Your task to perform on an android device: toggle javascript in the chrome app Image 0: 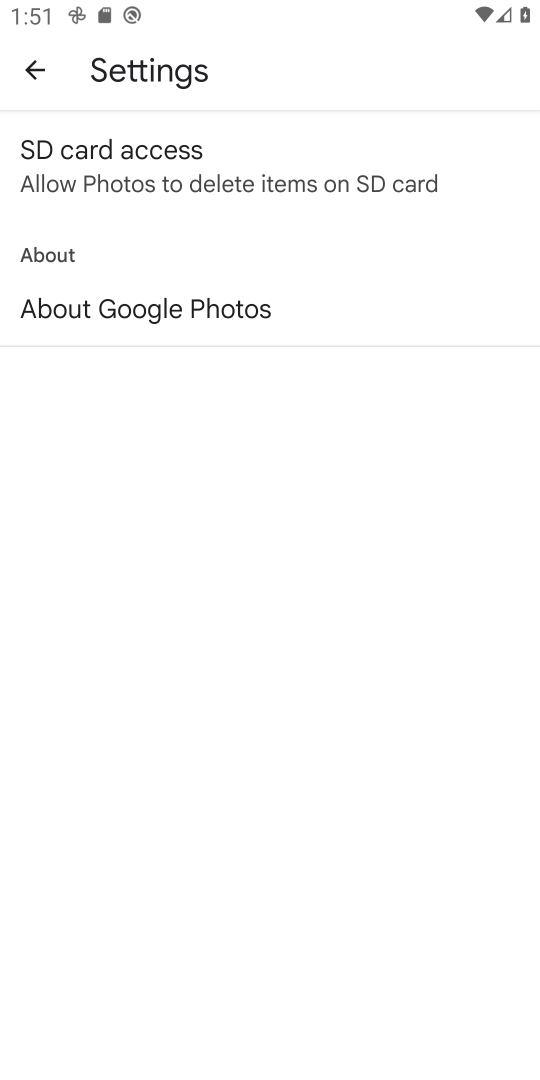
Step 0: press home button
Your task to perform on an android device: toggle javascript in the chrome app Image 1: 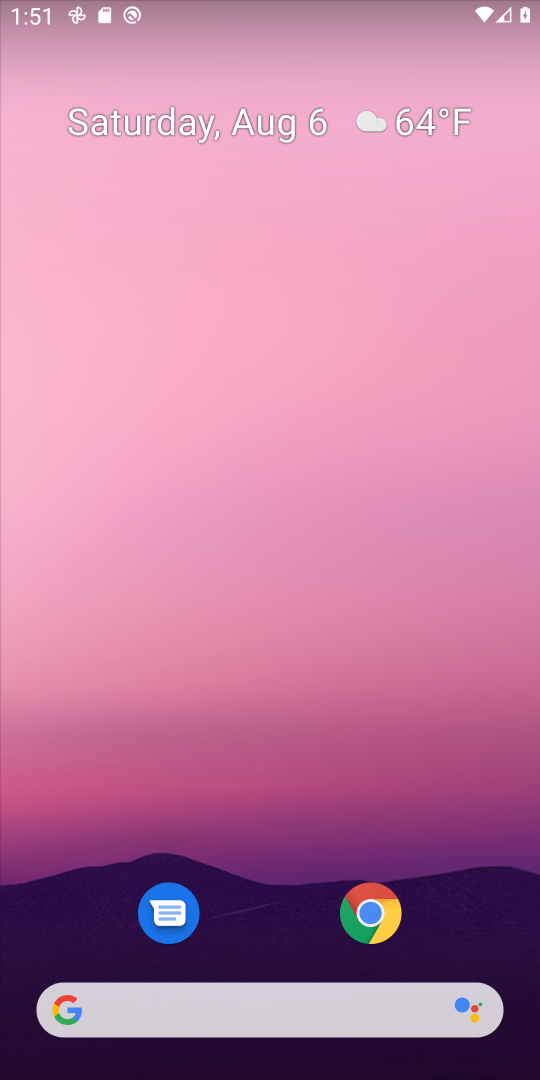
Step 1: drag from (467, 927) to (465, 420)
Your task to perform on an android device: toggle javascript in the chrome app Image 2: 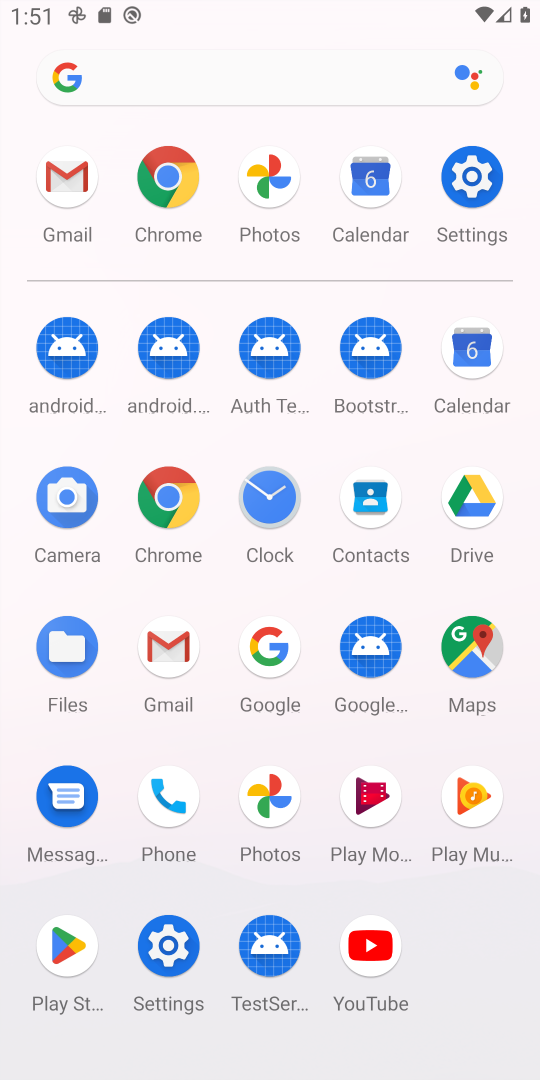
Step 2: click (156, 489)
Your task to perform on an android device: toggle javascript in the chrome app Image 3: 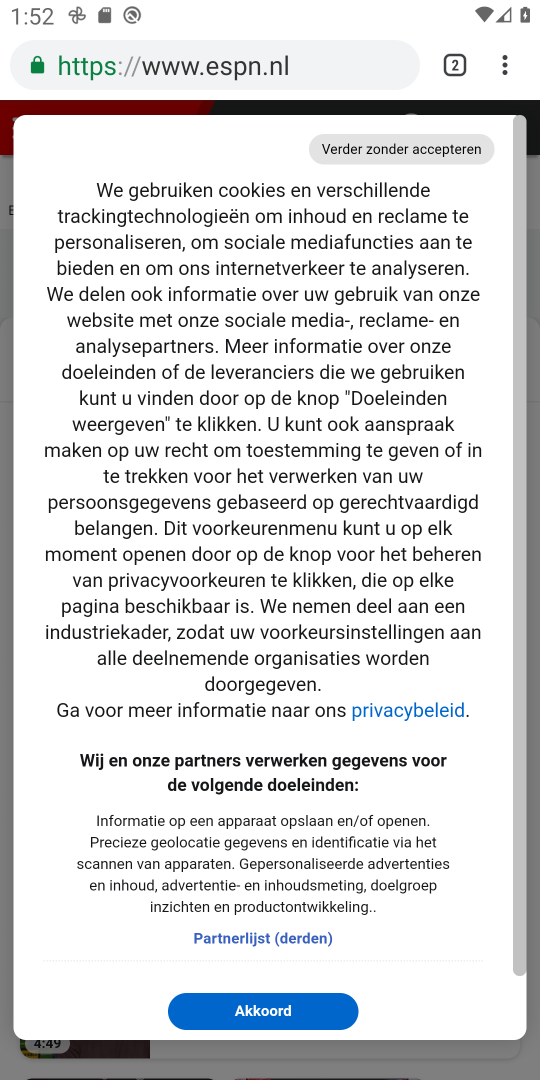
Step 3: click (503, 71)
Your task to perform on an android device: toggle javascript in the chrome app Image 4: 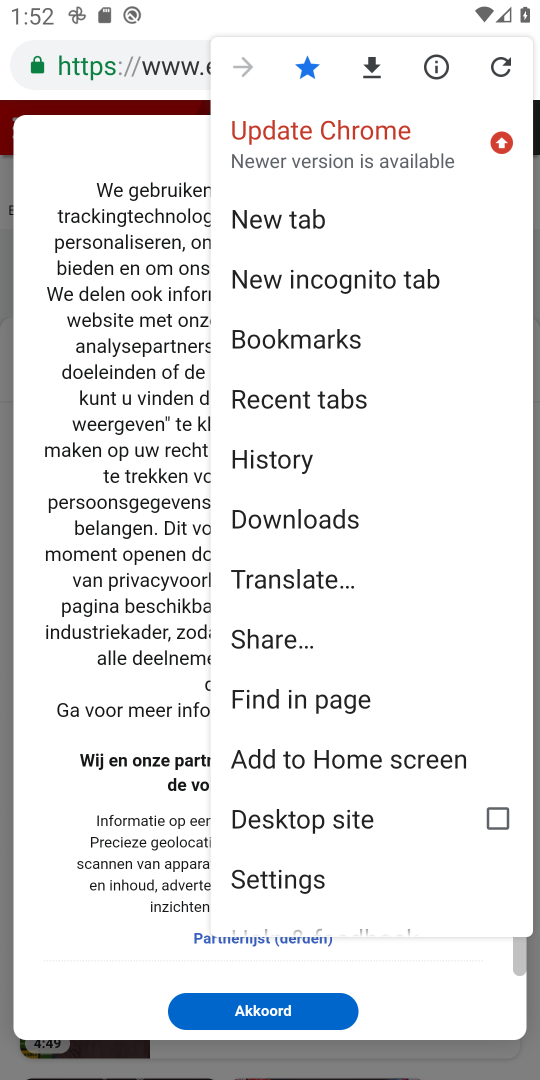
Step 4: click (319, 881)
Your task to perform on an android device: toggle javascript in the chrome app Image 5: 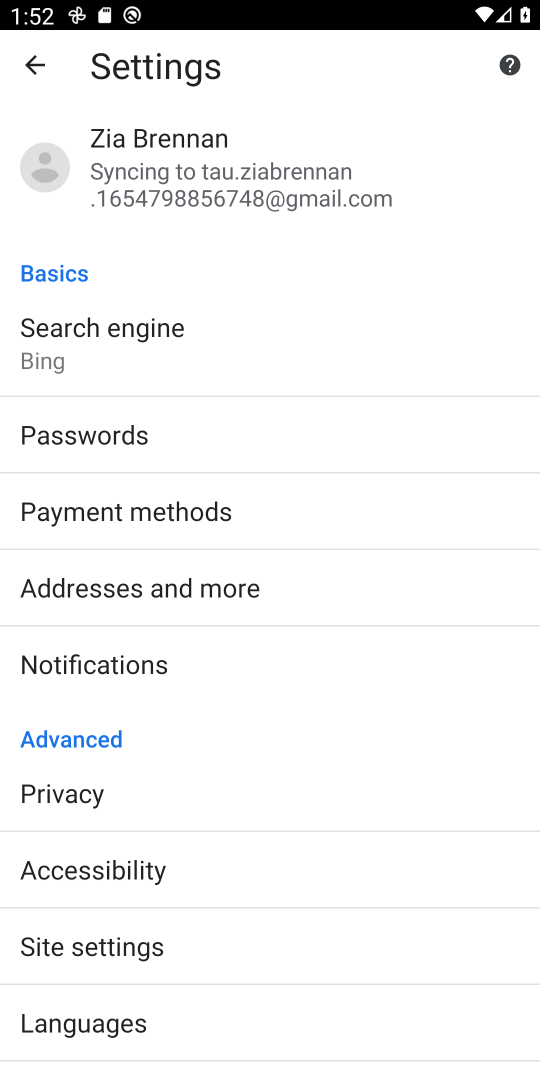
Step 5: drag from (367, 811) to (382, 610)
Your task to perform on an android device: toggle javascript in the chrome app Image 6: 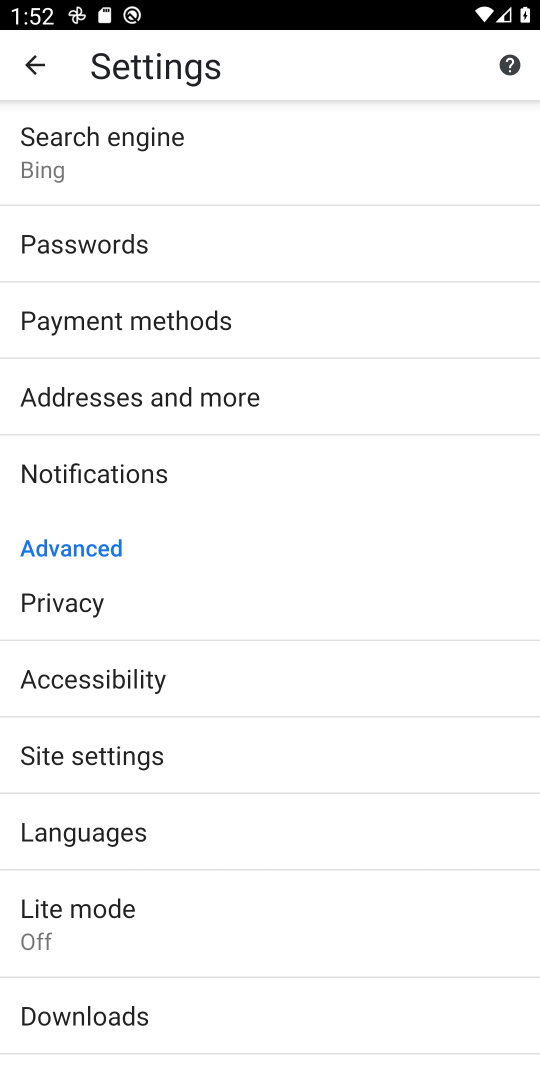
Step 6: drag from (356, 821) to (378, 570)
Your task to perform on an android device: toggle javascript in the chrome app Image 7: 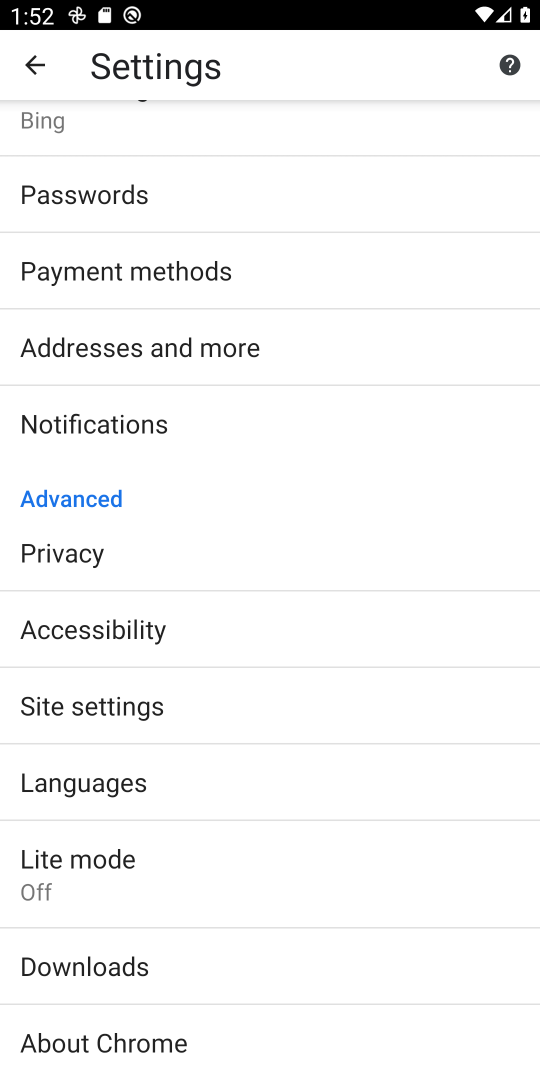
Step 7: click (235, 711)
Your task to perform on an android device: toggle javascript in the chrome app Image 8: 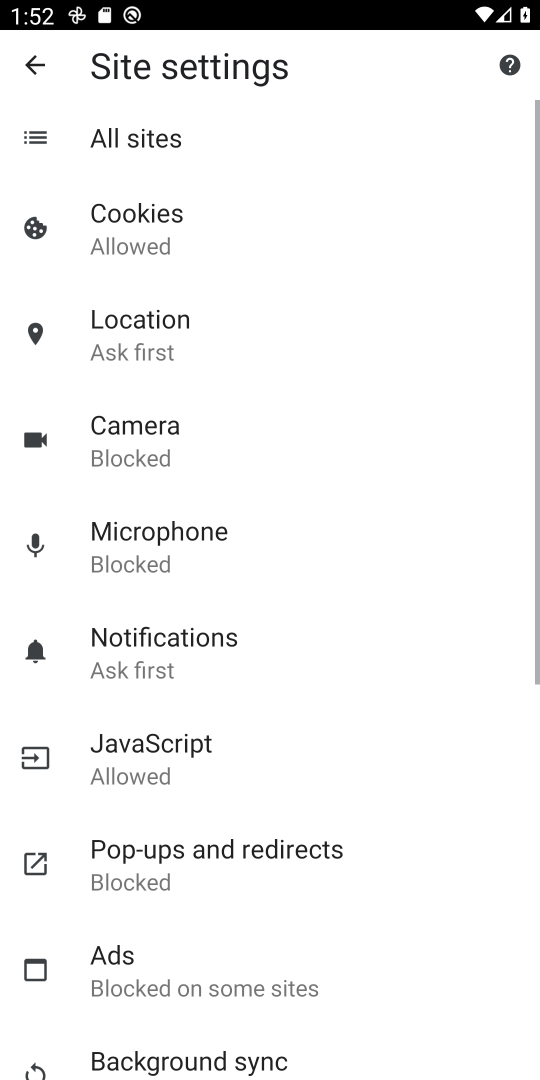
Step 8: drag from (314, 806) to (352, 506)
Your task to perform on an android device: toggle javascript in the chrome app Image 9: 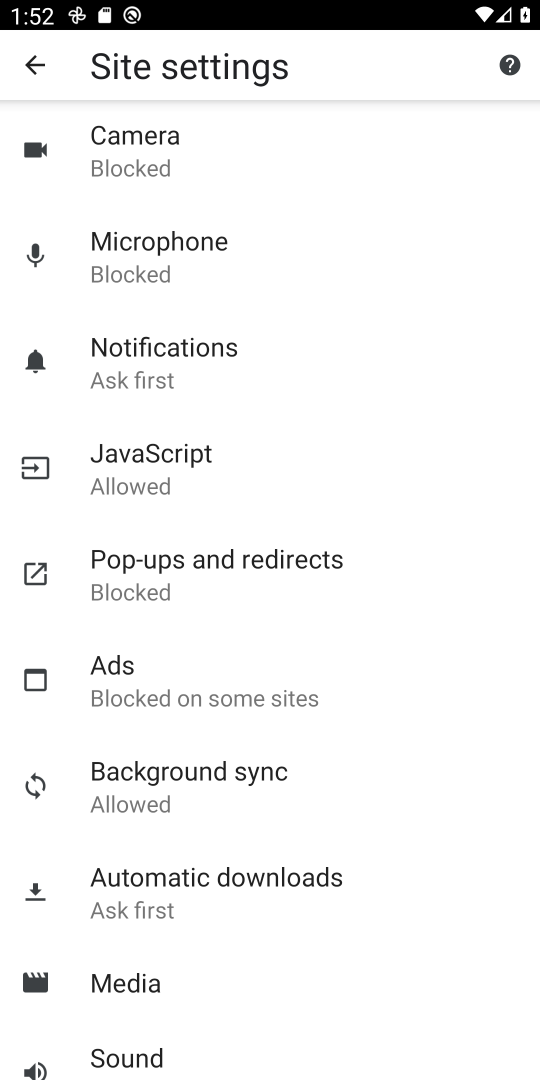
Step 9: drag from (385, 782) to (396, 617)
Your task to perform on an android device: toggle javascript in the chrome app Image 10: 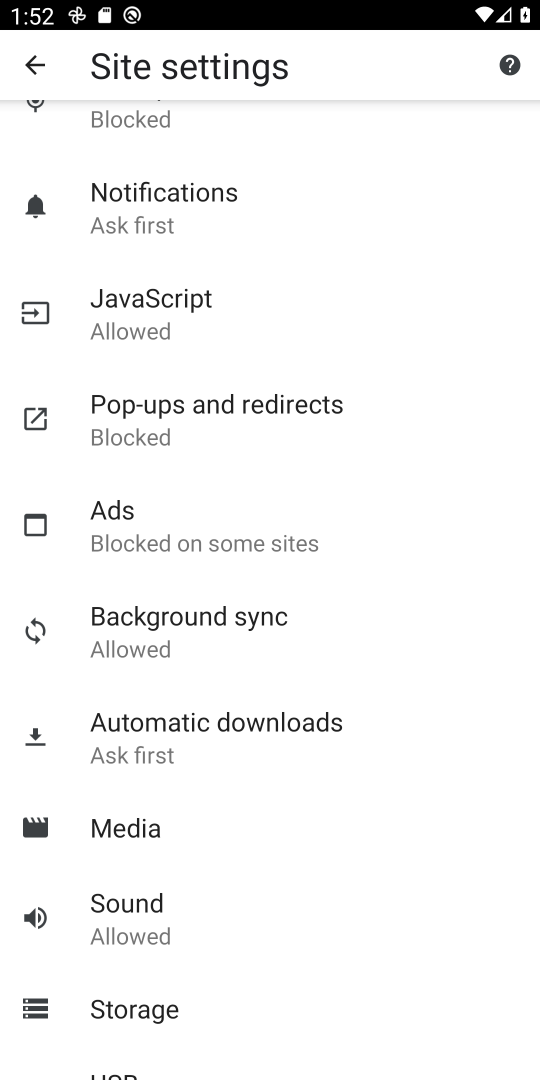
Step 10: drag from (409, 438) to (446, 672)
Your task to perform on an android device: toggle javascript in the chrome app Image 11: 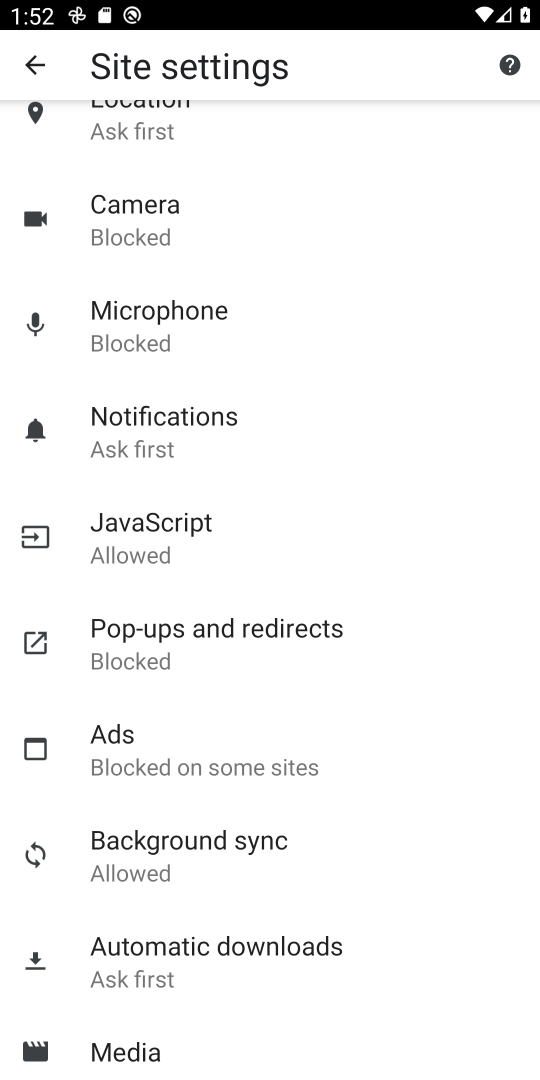
Step 11: drag from (444, 415) to (458, 650)
Your task to perform on an android device: toggle javascript in the chrome app Image 12: 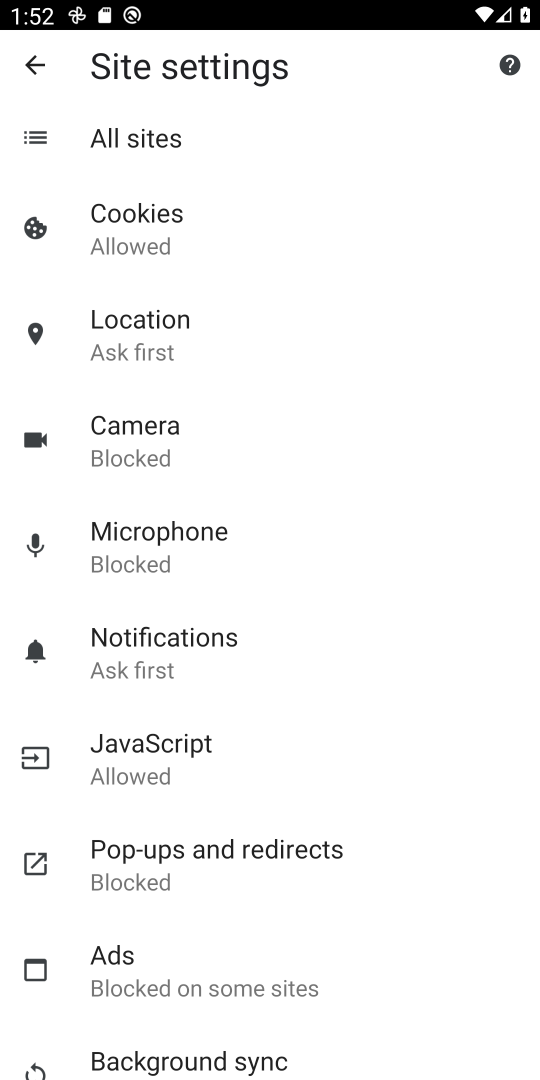
Step 12: click (185, 771)
Your task to perform on an android device: toggle javascript in the chrome app Image 13: 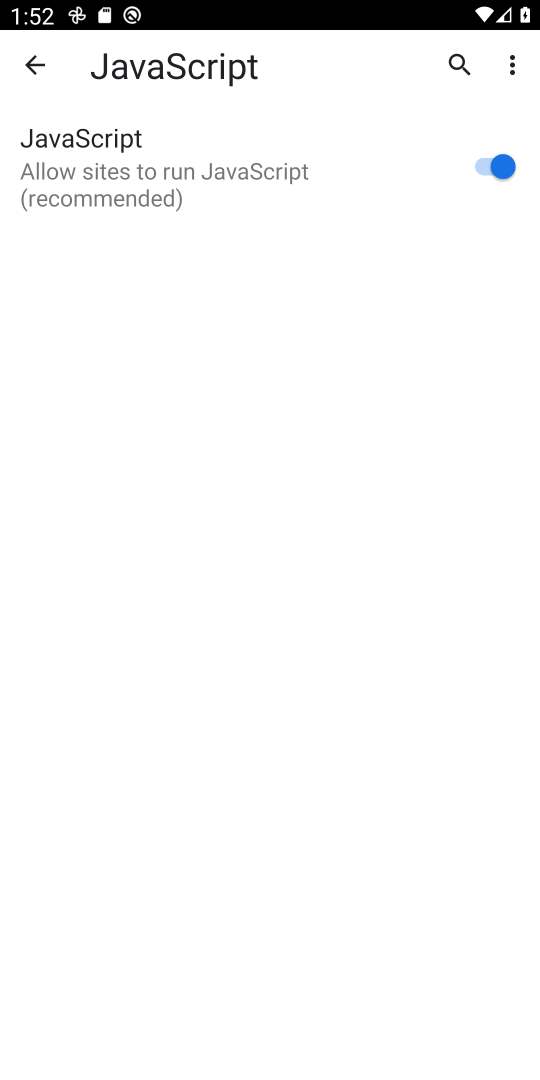
Step 13: click (503, 165)
Your task to perform on an android device: toggle javascript in the chrome app Image 14: 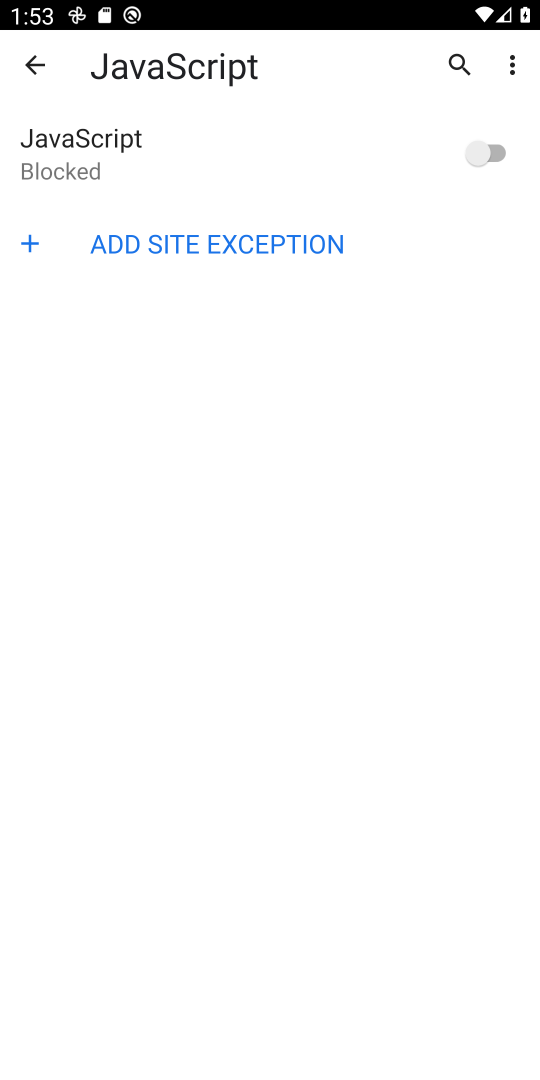
Step 14: task complete